Your task to perform on an android device: turn on javascript in the chrome app Image 0: 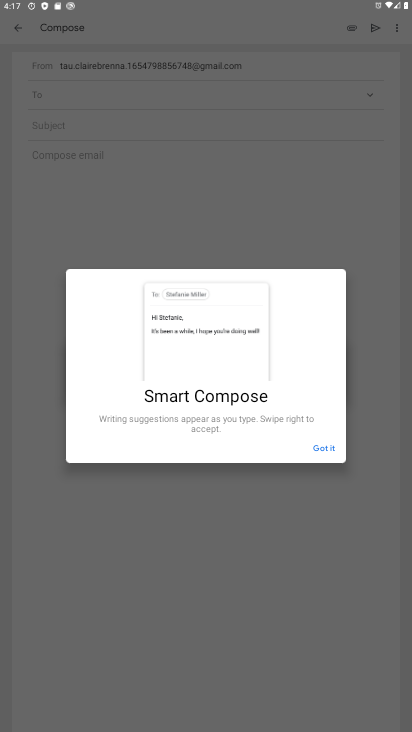
Step 0: press home button
Your task to perform on an android device: turn on javascript in the chrome app Image 1: 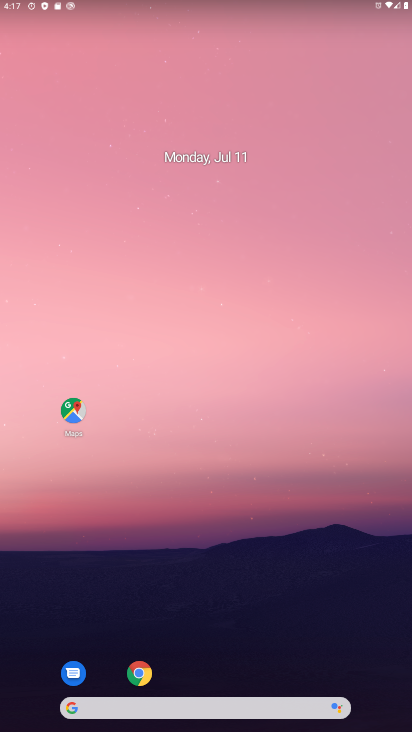
Step 1: drag from (203, 596) to (273, 60)
Your task to perform on an android device: turn on javascript in the chrome app Image 2: 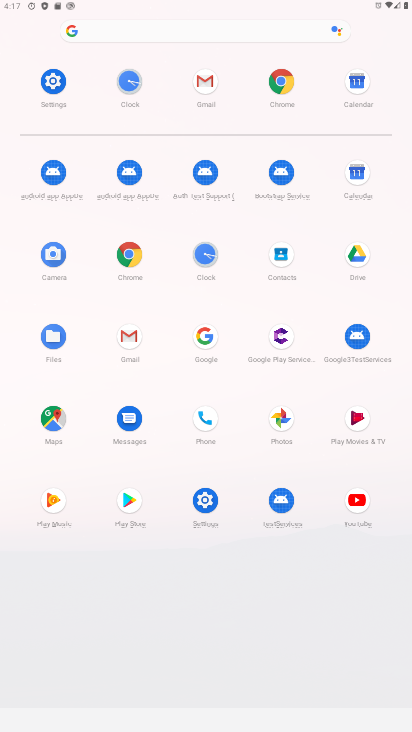
Step 2: click (120, 252)
Your task to perform on an android device: turn on javascript in the chrome app Image 3: 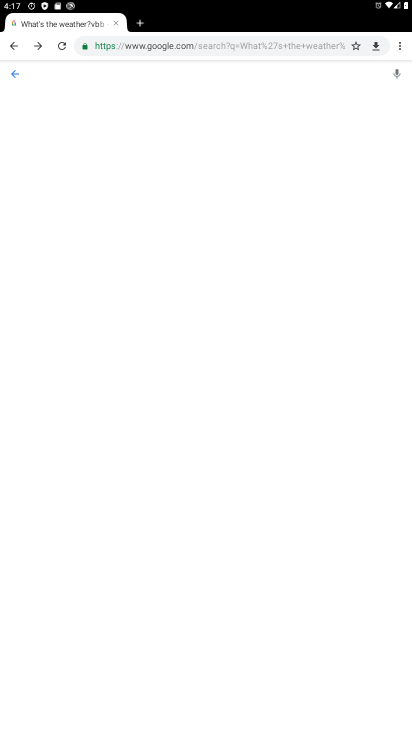
Step 3: drag from (401, 45) to (309, 285)
Your task to perform on an android device: turn on javascript in the chrome app Image 4: 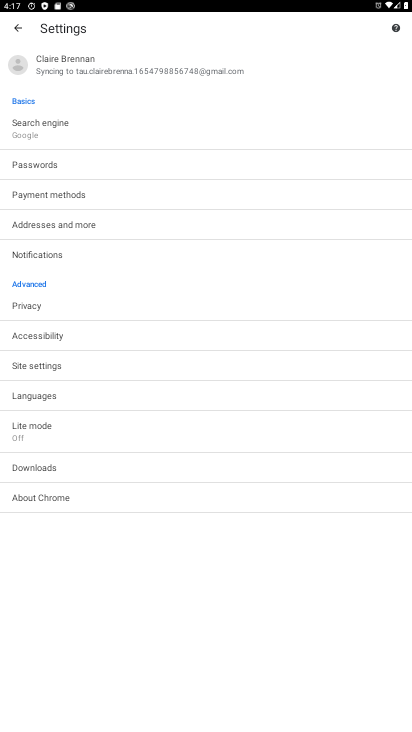
Step 4: click (37, 364)
Your task to perform on an android device: turn on javascript in the chrome app Image 5: 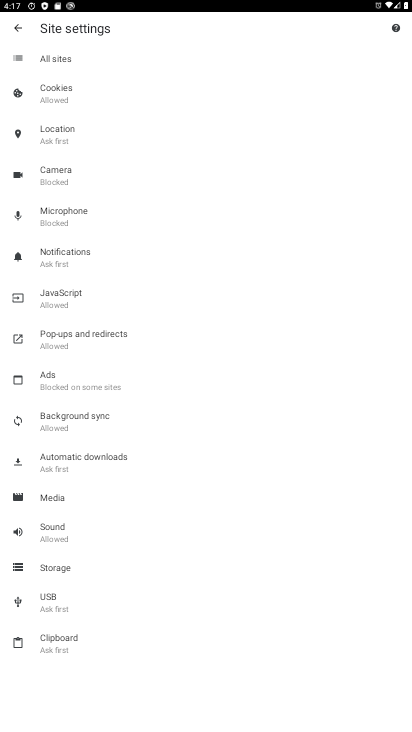
Step 5: click (64, 298)
Your task to perform on an android device: turn on javascript in the chrome app Image 6: 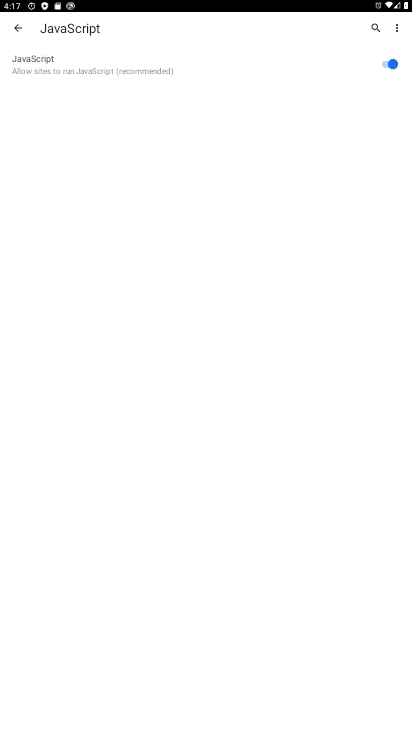
Step 6: task complete